Your task to perform on an android device: turn on data saver in the chrome app Image 0: 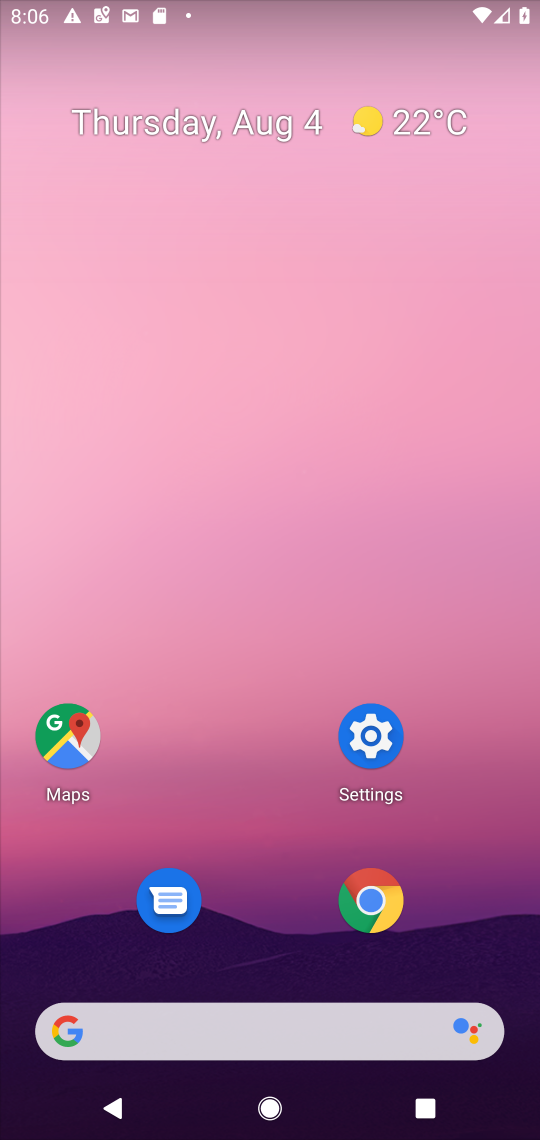
Step 0: press home button
Your task to perform on an android device: turn on data saver in the chrome app Image 1: 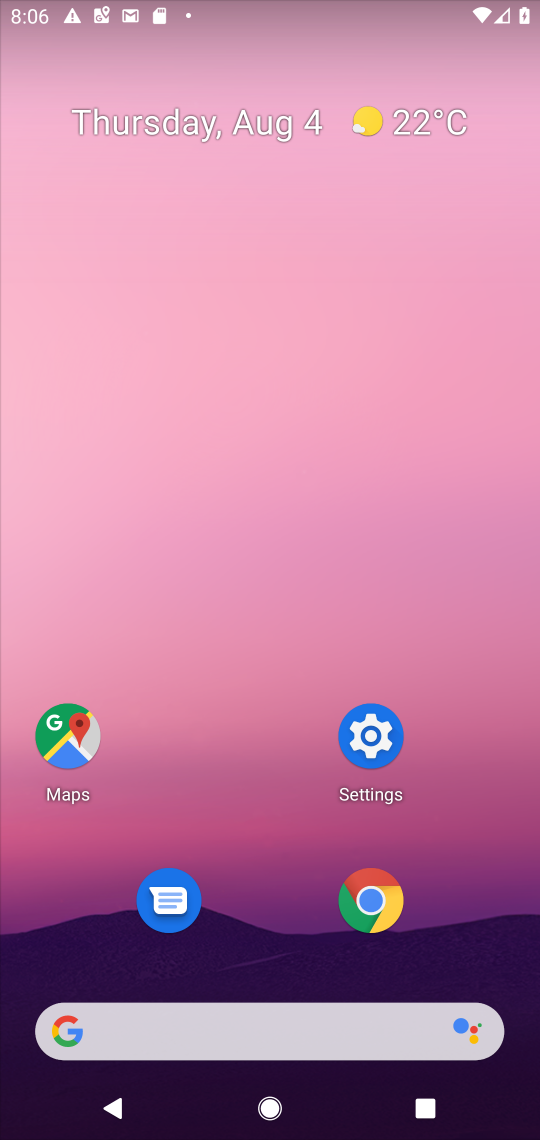
Step 1: click (375, 906)
Your task to perform on an android device: turn on data saver in the chrome app Image 2: 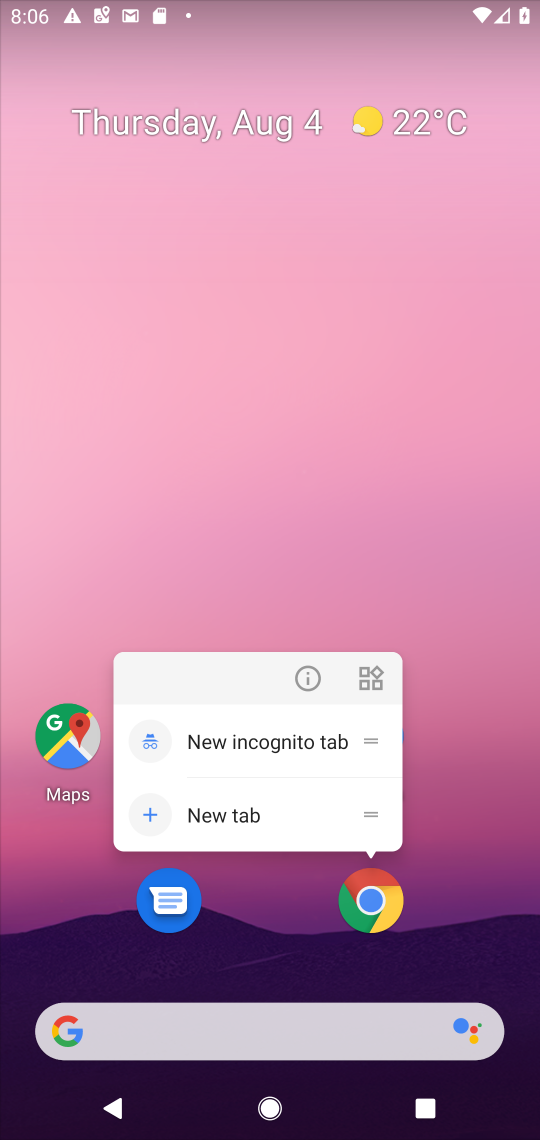
Step 2: click (375, 906)
Your task to perform on an android device: turn on data saver in the chrome app Image 3: 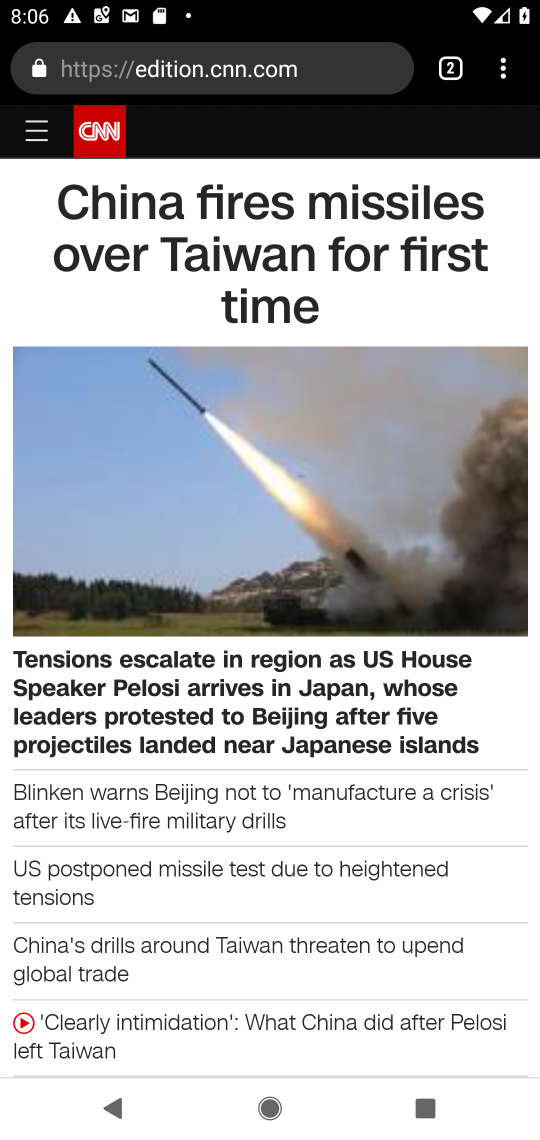
Step 3: drag from (504, 65) to (337, 851)
Your task to perform on an android device: turn on data saver in the chrome app Image 4: 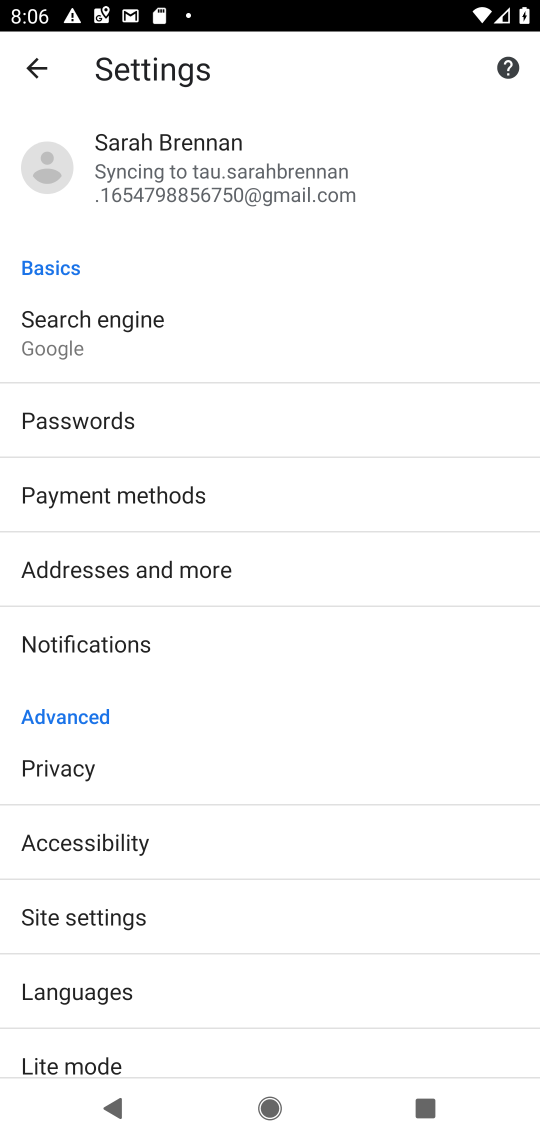
Step 4: drag from (162, 1002) to (340, 407)
Your task to perform on an android device: turn on data saver in the chrome app Image 5: 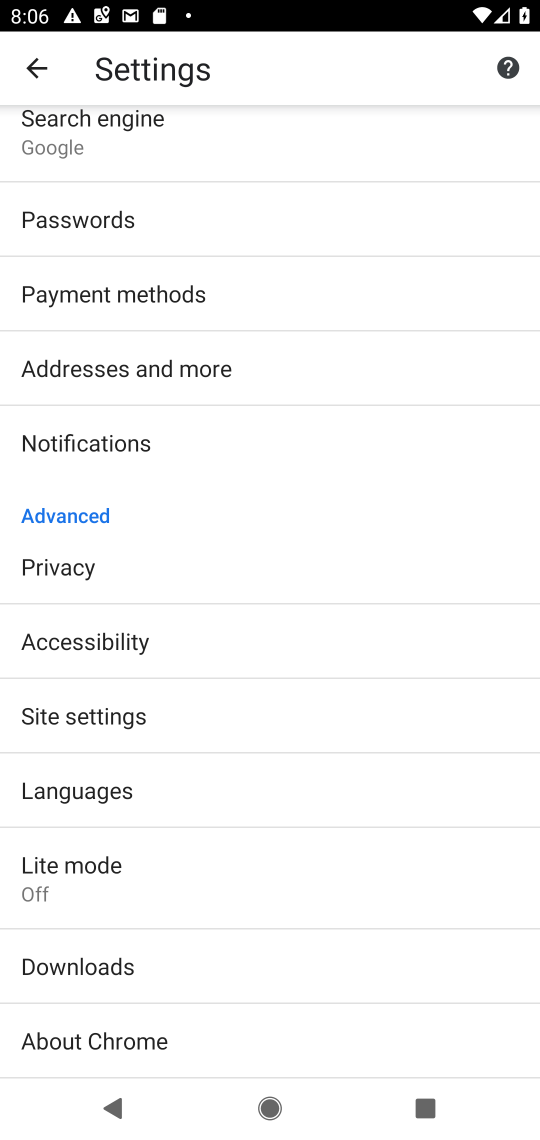
Step 5: click (122, 885)
Your task to perform on an android device: turn on data saver in the chrome app Image 6: 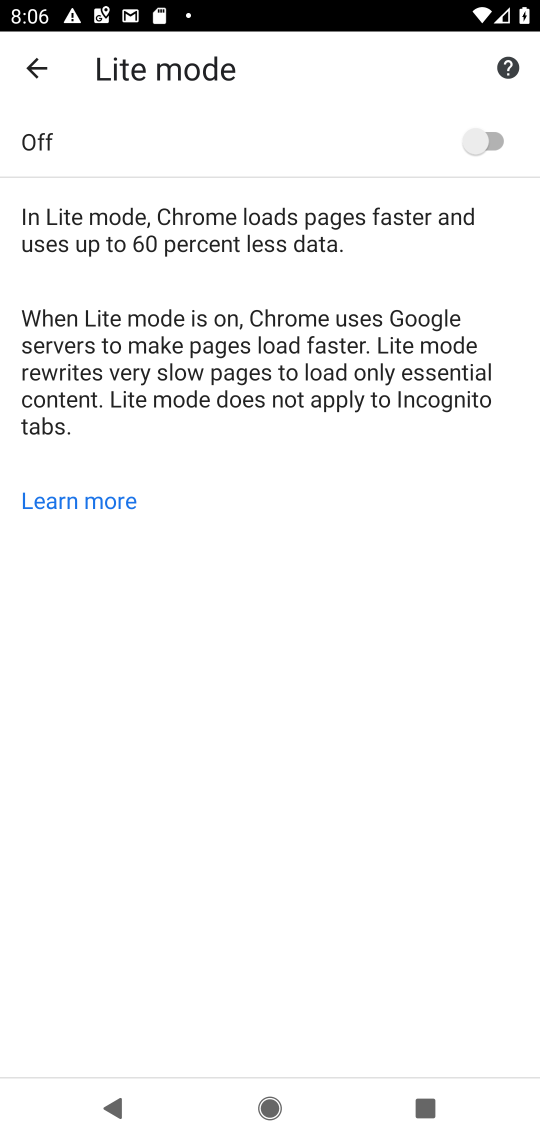
Step 6: click (493, 143)
Your task to perform on an android device: turn on data saver in the chrome app Image 7: 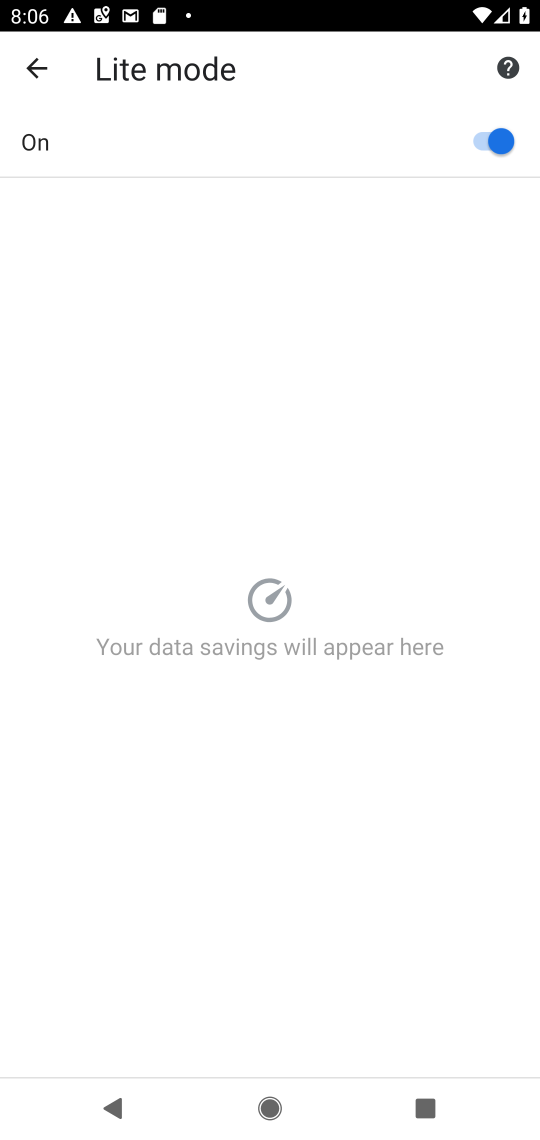
Step 7: task complete